Your task to perform on an android device: Go to Yahoo.com Image 0: 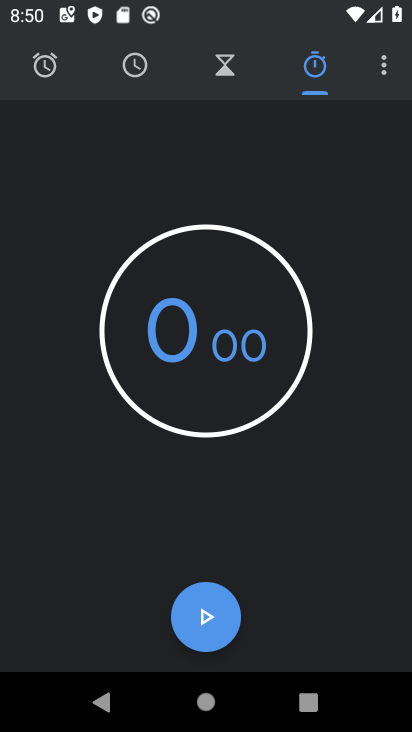
Step 0: press home button
Your task to perform on an android device: Go to Yahoo.com Image 1: 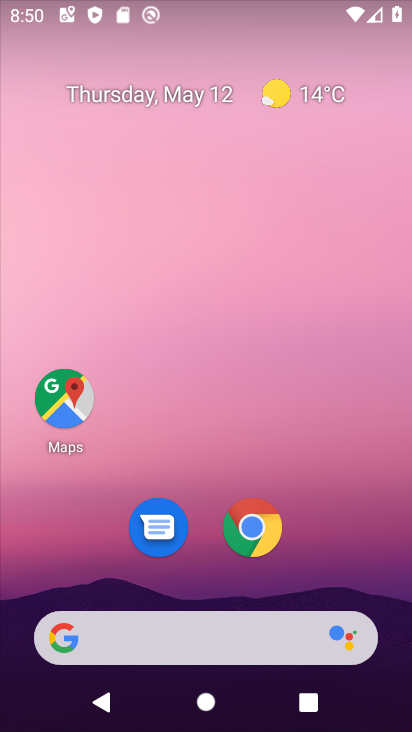
Step 1: click (260, 531)
Your task to perform on an android device: Go to Yahoo.com Image 2: 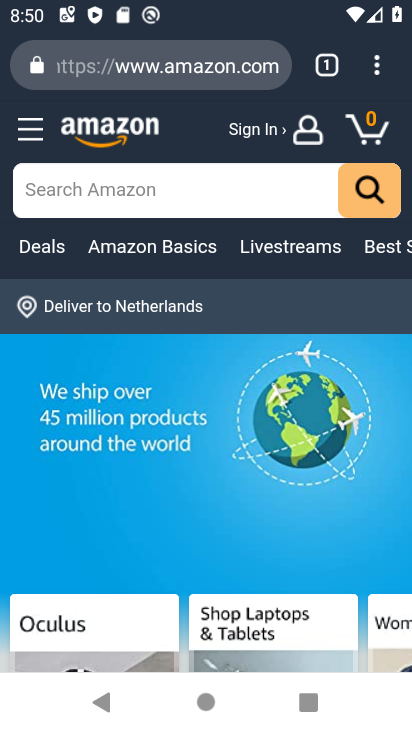
Step 2: click (196, 68)
Your task to perform on an android device: Go to Yahoo.com Image 3: 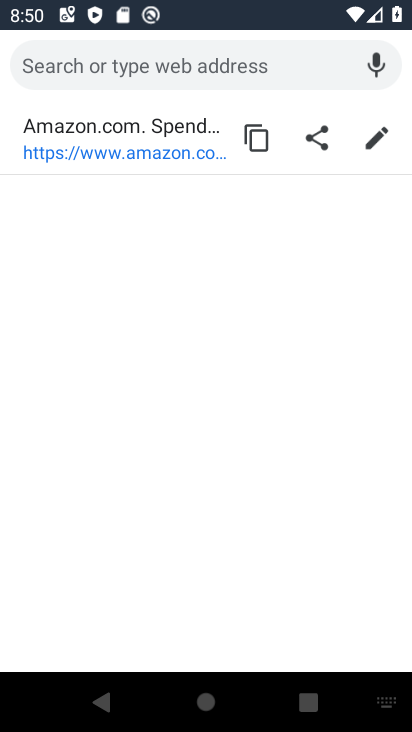
Step 3: type "yahoo.com"
Your task to perform on an android device: Go to Yahoo.com Image 4: 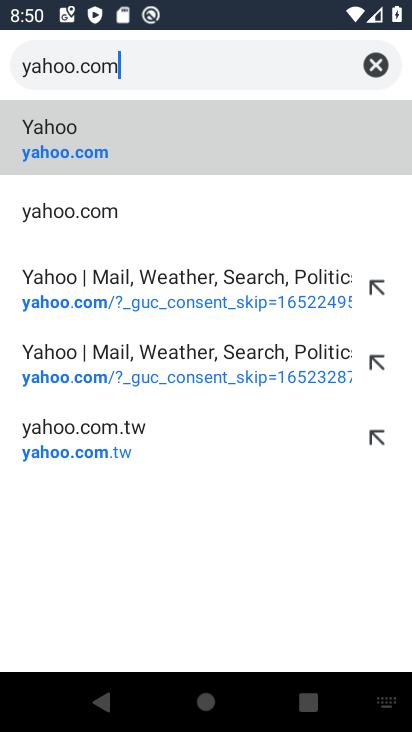
Step 4: click (130, 143)
Your task to perform on an android device: Go to Yahoo.com Image 5: 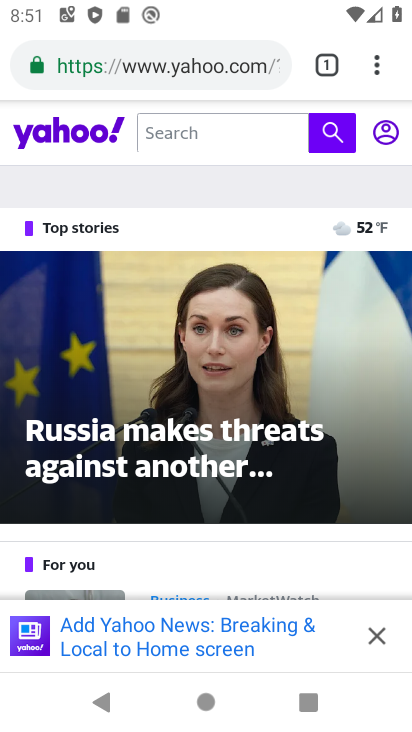
Step 5: task complete